Your task to perform on an android device: Search for the best selling coffee table on Crate & Barrel Image 0: 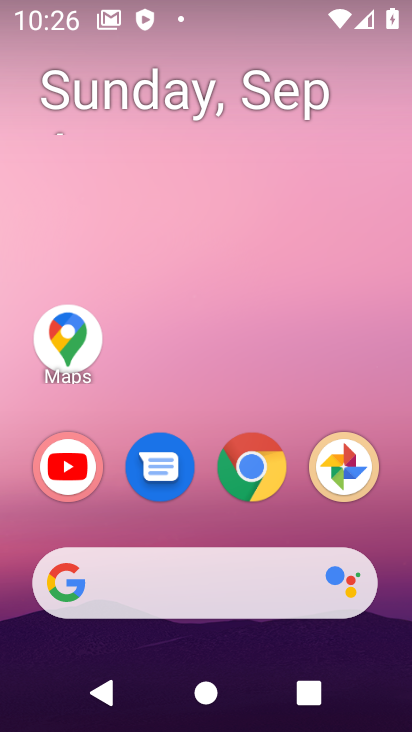
Step 0: click (258, 473)
Your task to perform on an android device: Search for the best selling coffee table on Crate & Barrel Image 1: 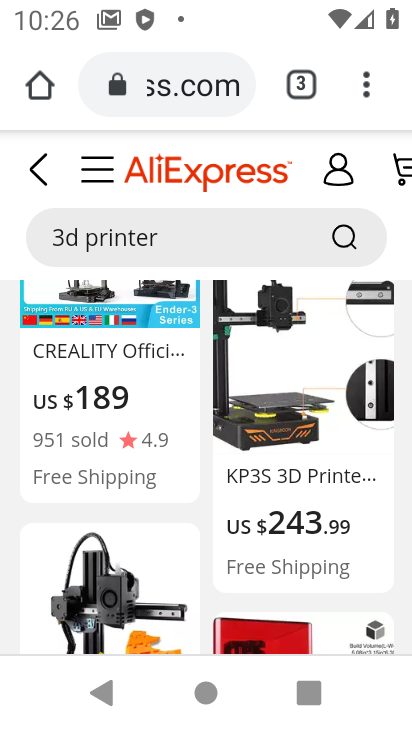
Step 1: click (208, 84)
Your task to perform on an android device: Search for the best selling coffee table on Crate & Barrel Image 2: 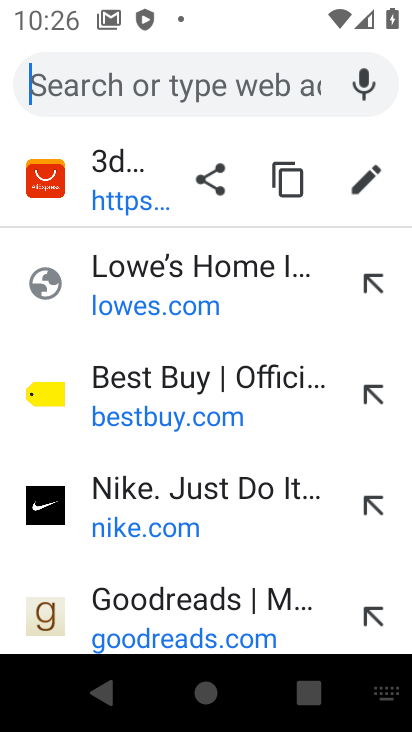
Step 2: type "crate & barrel"
Your task to perform on an android device: Search for the best selling coffee table on Crate & Barrel Image 3: 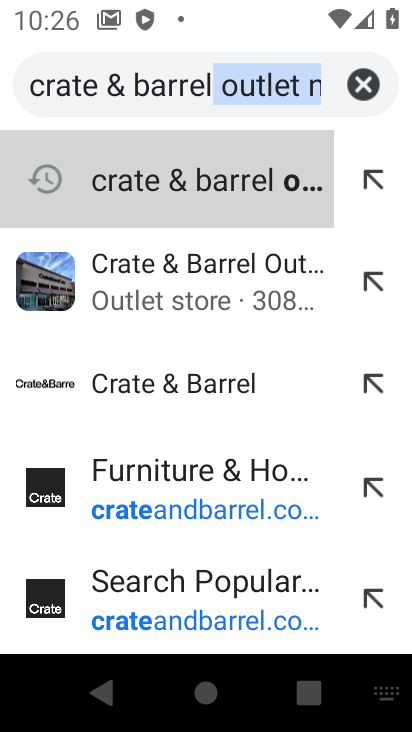
Step 3: click (130, 262)
Your task to perform on an android device: Search for the best selling coffee table on Crate & Barrel Image 4: 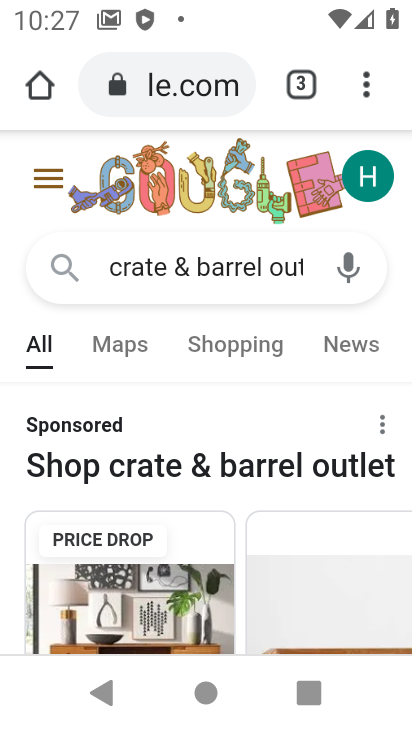
Step 4: drag from (157, 558) to (228, 183)
Your task to perform on an android device: Search for the best selling coffee table on Crate & Barrel Image 5: 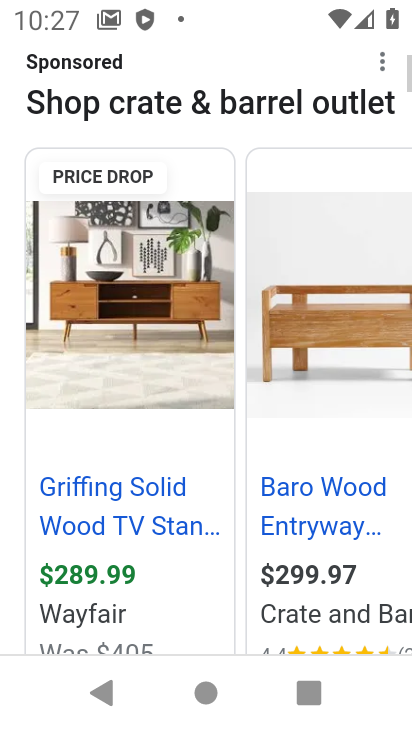
Step 5: drag from (244, 372) to (286, 151)
Your task to perform on an android device: Search for the best selling coffee table on Crate & Barrel Image 6: 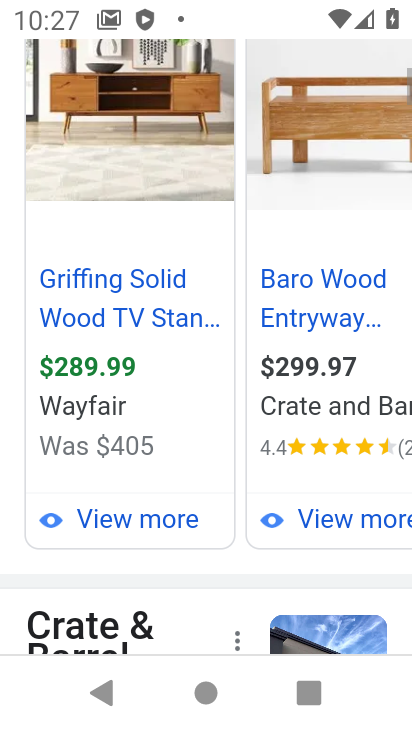
Step 6: drag from (308, 512) to (315, 178)
Your task to perform on an android device: Search for the best selling coffee table on Crate & Barrel Image 7: 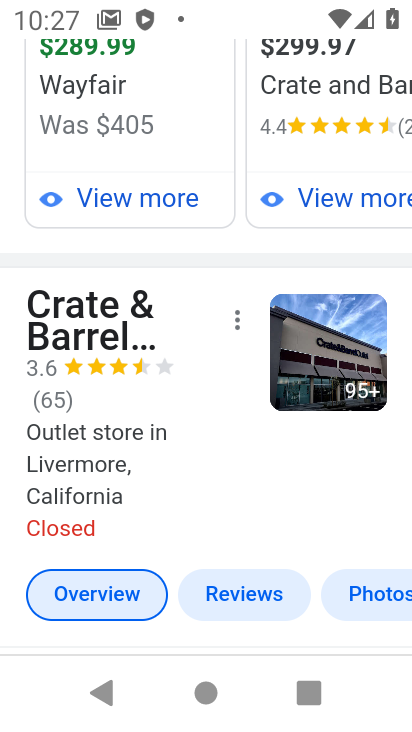
Step 7: click (76, 296)
Your task to perform on an android device: Search for the best selling coffee table on Crate & Barrel Image 8: 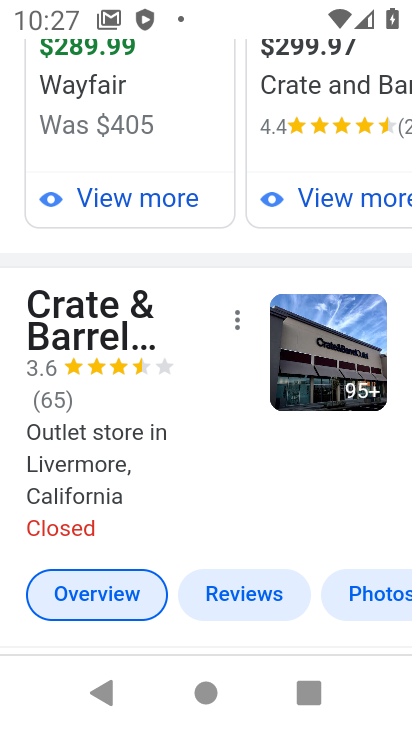
Step 8: click (77, 313)
Your task to perform on an android device: Search for the best selling coffee table on Crate & Barrel Image 9: 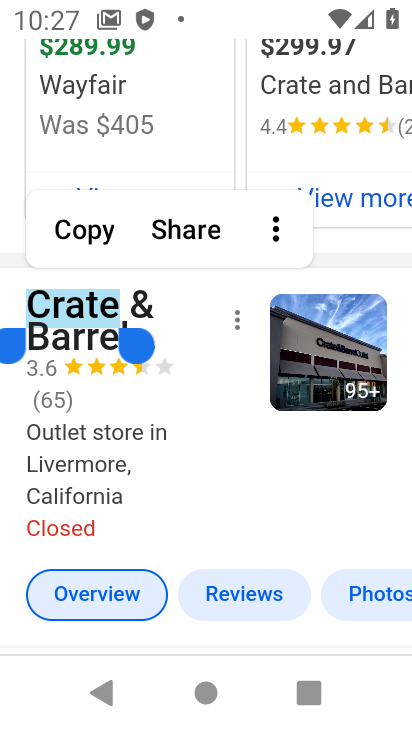
Step 9: drag from (405, 452) to (369, 556)
Your task to perform on an android device: Search for the best selling coffee table on Crate & Barrel Image 10: 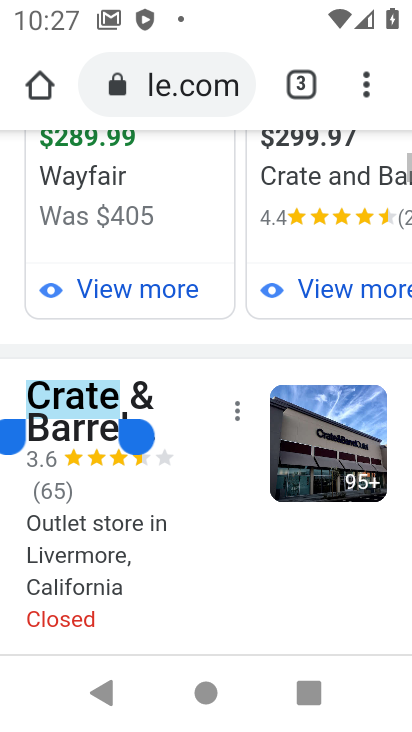
Step 10: drag from (351, 534) to (188, 12)
Your task to perform on an android device: Search for the best selling coffee table on Crate & Barrel Image 11: 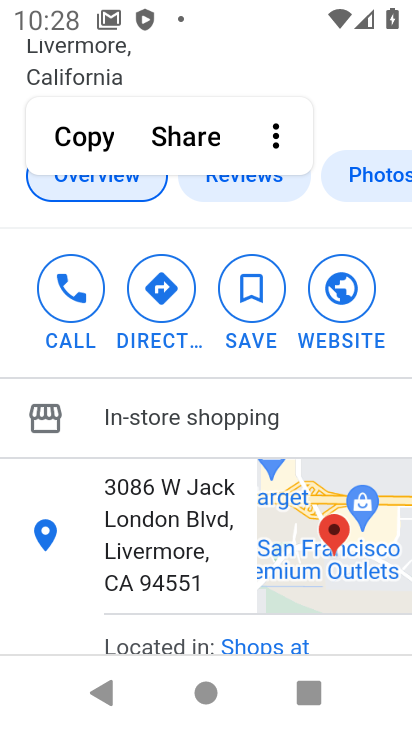
Step 11: drag from (354, 429) to (408, 58)
Your task to perform on an android device: Search for the best selling coffee table on Crate & Barrel Image 12: 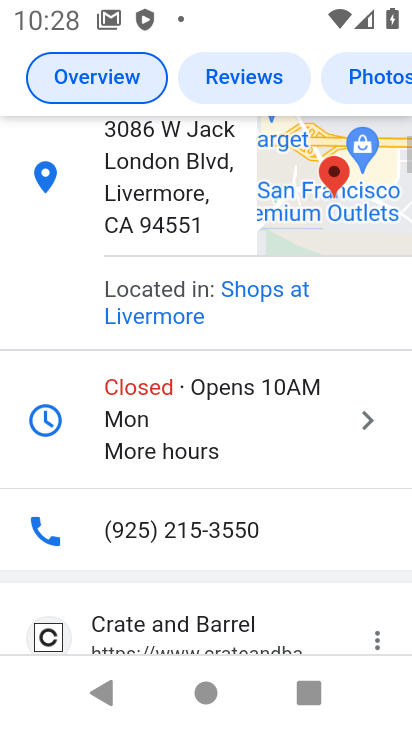
Step 12: drag from (376, 552) to (404, 162)
Your task to perform on an android device: Search for the best selling coffee table on Crate & Barrel Image 13: 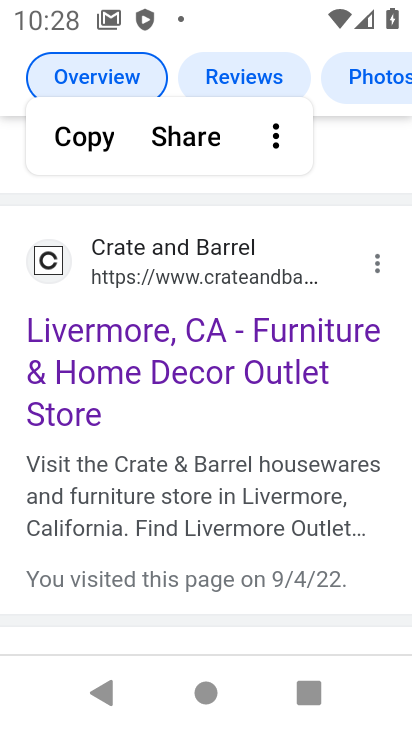
Step 13: click (127, 333)
Your task to perform on an android device: Search for the best selling coffee table on Crate & Barrel Image 14: 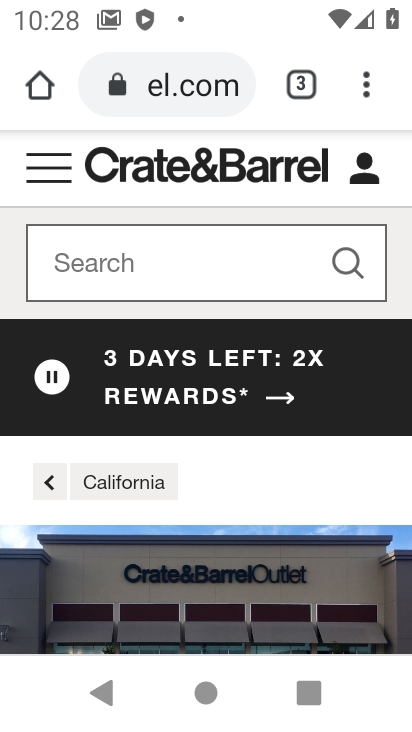
Step 14: click (83, 275)
Your task to perform on an android device: Search for the best selling coffee table on Crate & Barrel Image 15: 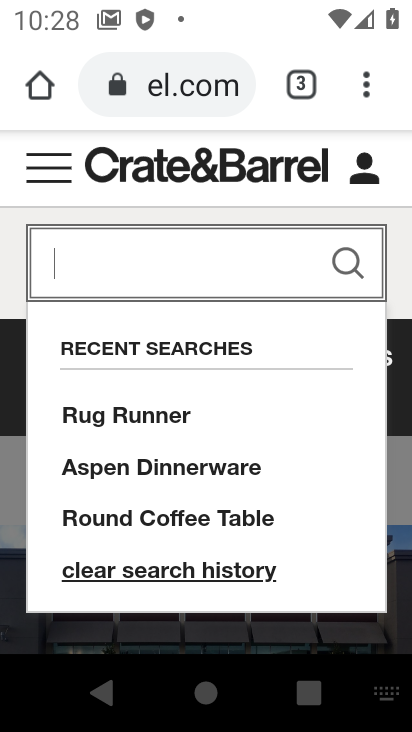
Step 15: type "coffee table"
Your task to perform on an android device: Search for the best selling coffee table on Crate & Barrel Image 16: 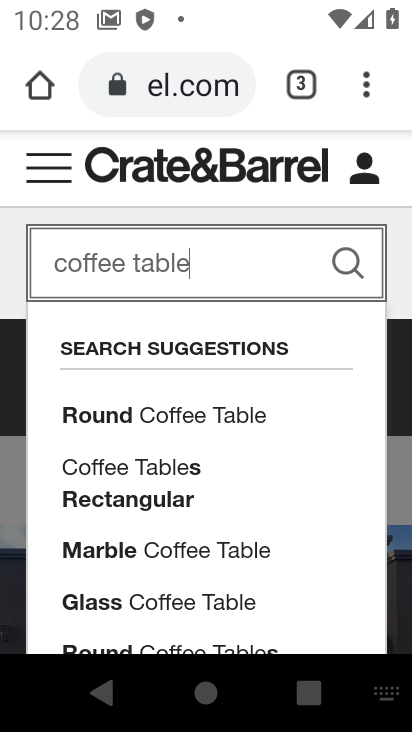
Step 16: click (166, 416)
Your task to perform on an android device: Search for the best selling coffee table on Crate & Barrel Image 17: 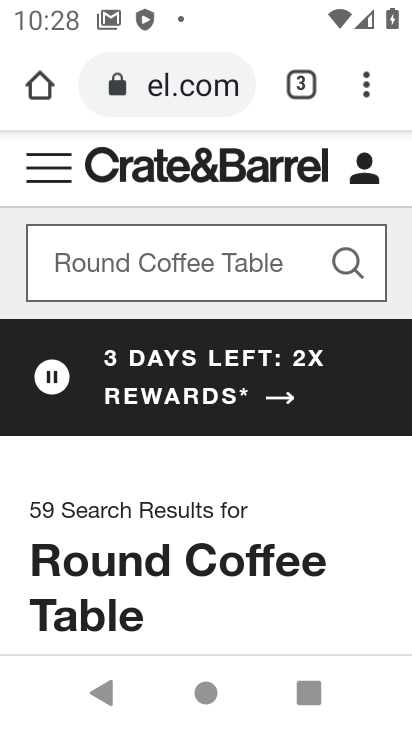
Step 17: drag from (293, 557) to (293, 312)
Your task to perform on an android device: Search for the best selling coffee table on Crate & Barrel Image 18: 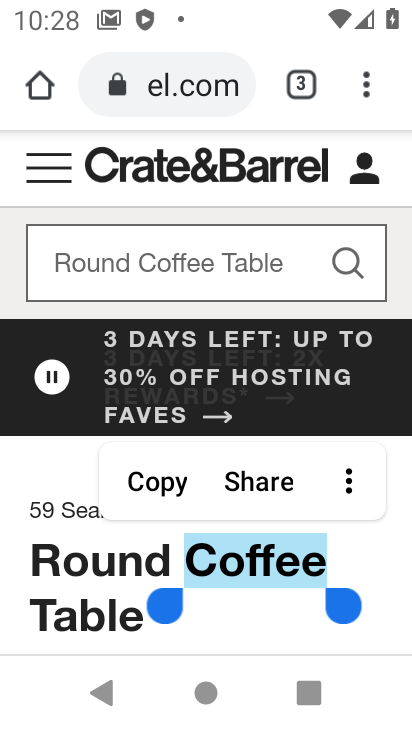
Step 18: drag from (391, 588) to (354, 195)
Your task to perform on an android device: Search for the best selling coffee table on Crate & Barrel Image 19: 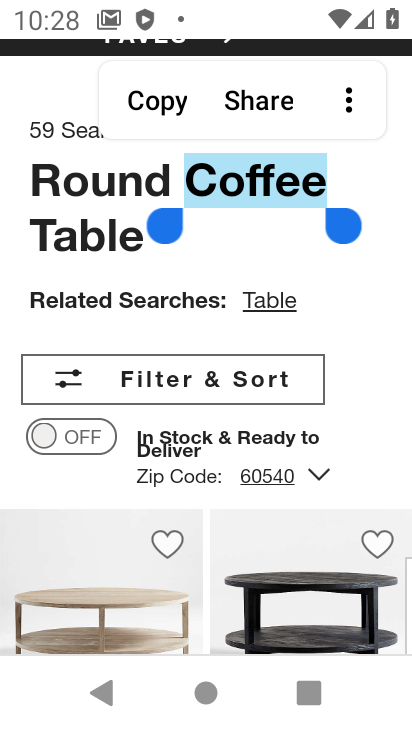
Step 19: click (157, 374)
Your task to perform on an android device: Search for the best selling coffee table on Crate & Barrel Image 20: 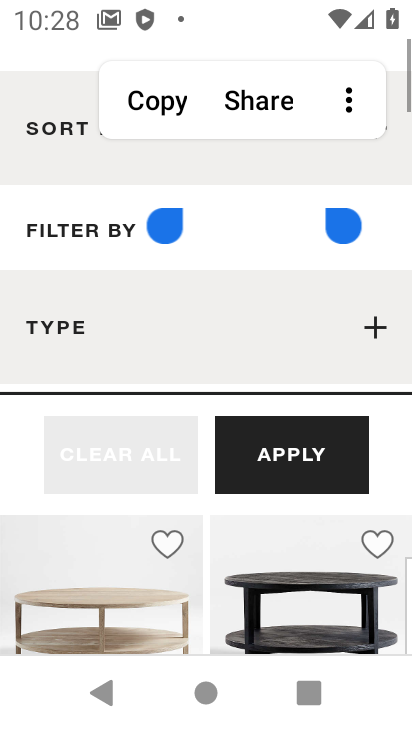
Step 20: drag from (375, 305) to (375, 237)
Your task to perform on an android device: Search for the best selling coffee table on Crate & Barrel Image 21: 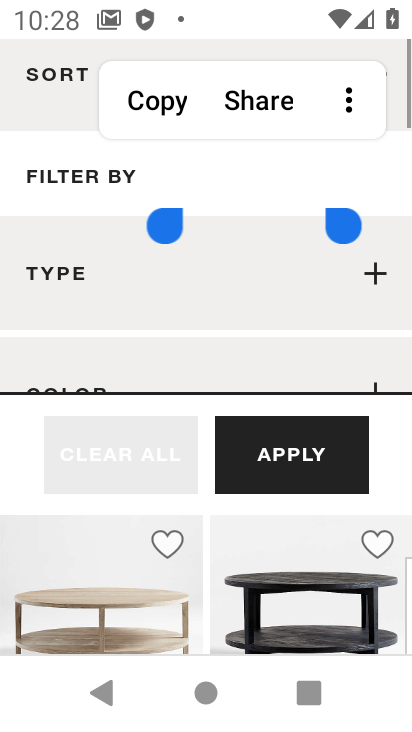
Step 21: drag from (332, 321) to (338, 193)
Your task to perform on an android device: Search for the best selling coffee table on Crate & Barrel Image 22: 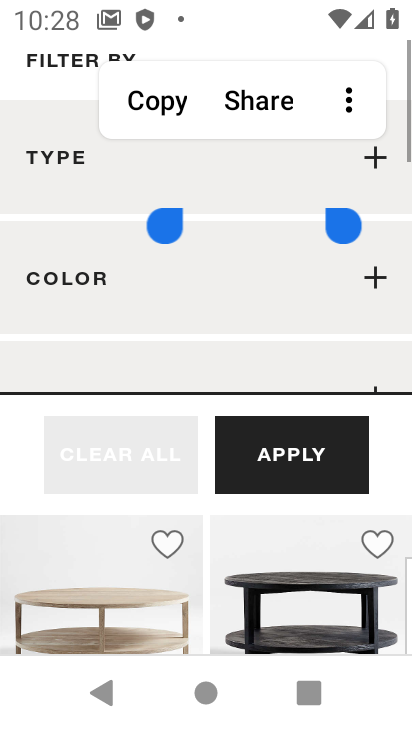
Step 22: drag from (270, 340) to (281, 155)
Your task to perform on an android device: Search for the best selling coffee table on Crate & Barrel Image 23: 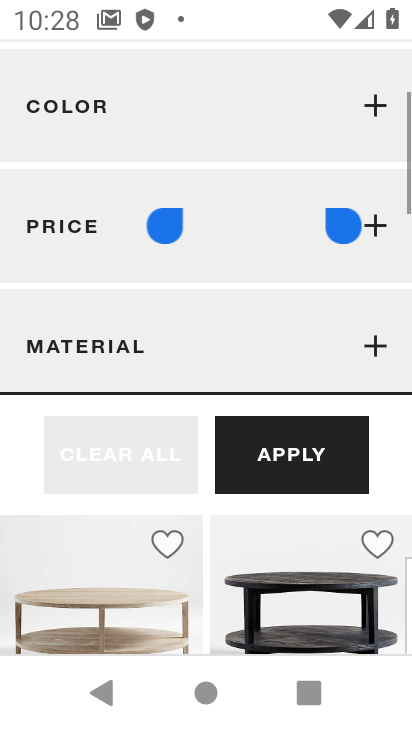
Step 23: drag from (235, 292) to (246, 191)
Your task to perform on an android device: Search for the best selling coffee table on Crate & Barrel Image 24: 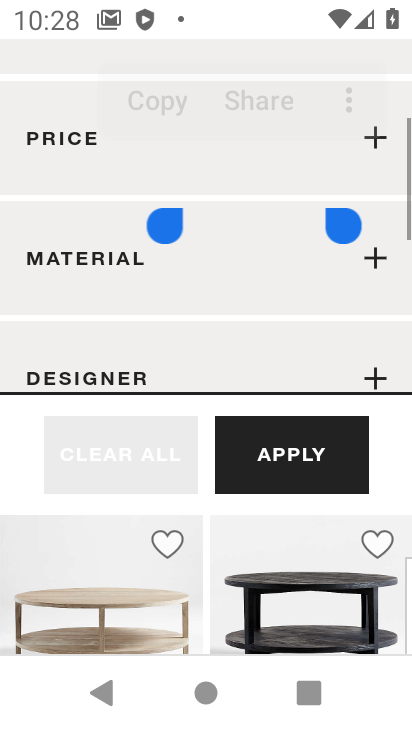
Step 24: drag from (260, 168) to (290, 89)
Your task to perform on an android device: Search for the best selling coffee table on Crate & Barrel Image 25: 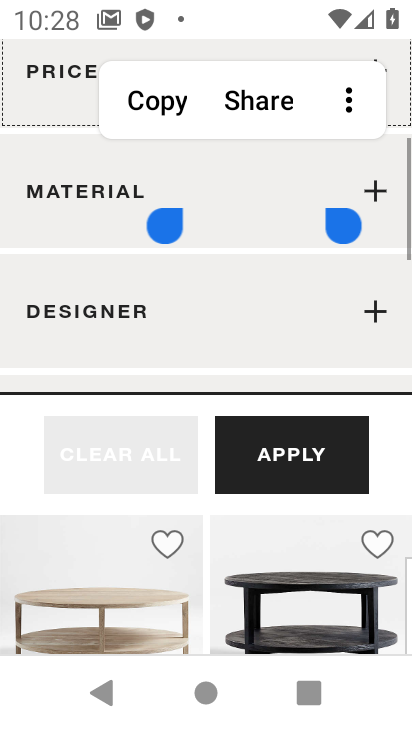
Step 25: drag from (287, 299) to (244, 71)
Your task to perform on an android device: Search for the best selling coffee table on Crate & Barrel Image 26: 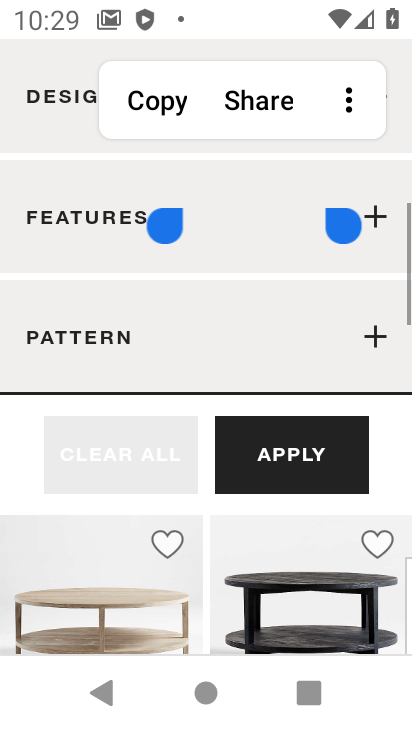
Step 26: drag from (211, 300) to (217, 47)
Your task to perform on an android device: Search for the best selling coffee table on Crate & Barrel Image 27: 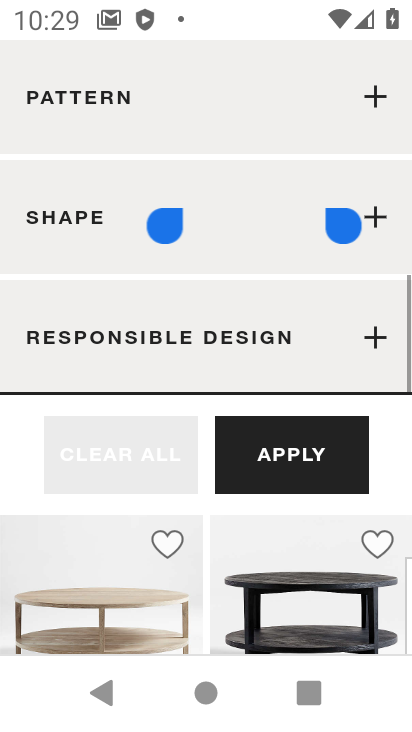
Step 27: drag from (249, 325) to (222, 22)
Your task to perform on an android device: Search for the best selling coffee table on Crate & Barrel Image 28: 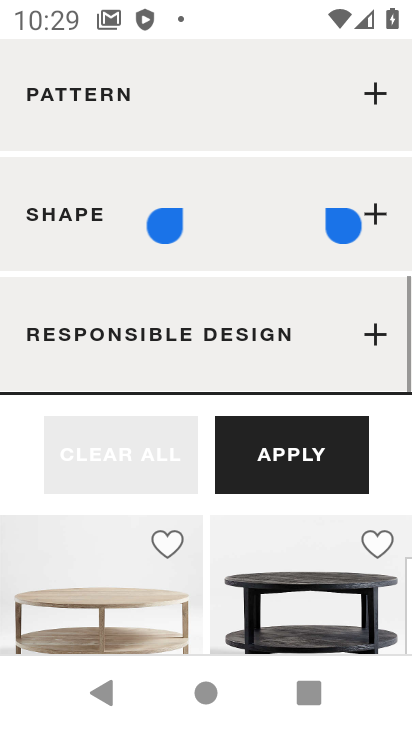
Step 28: drag from (184, 341) to (211, 69)
Your task to perform on an android device: Search for the best selling coffee table on Crate & Barrel Image 29: 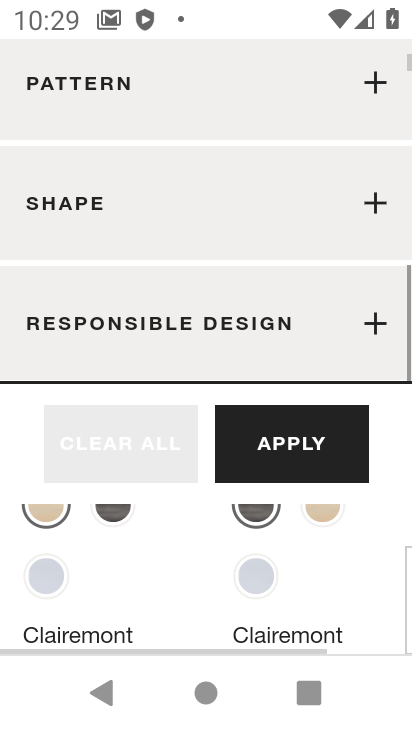
Step 29: drag from (302, 328) to (295, 123)
Your task to perform on an android device: Search for the best selling coffee table on Crate & Barrel Image 30: 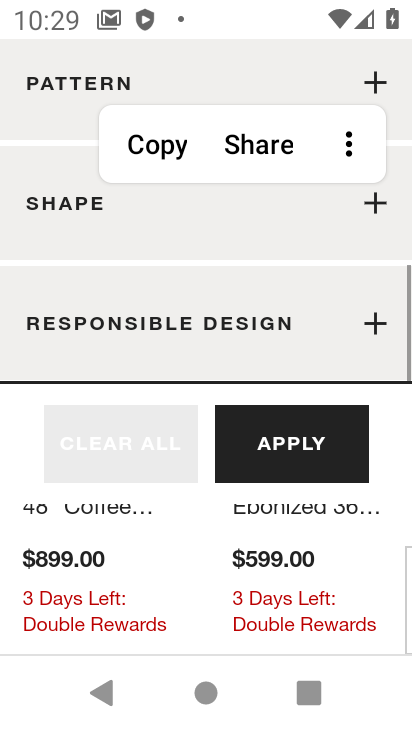
Step 30: drag from (252, 167) to (245, 378)
Your task to perform on an android device: Search for the best selling coffee table on Crate & Barrel Image 31: 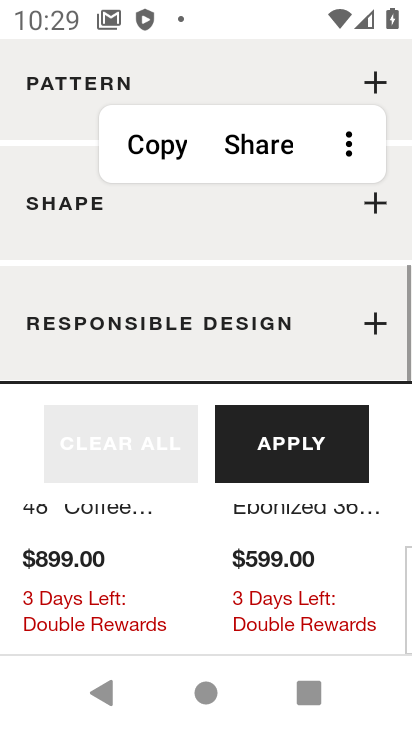
Step 31: drag from (264, 240) to (254, 456)
Your task to perform on an android device: Search for the best selling coffee table on Crate & Barrel Image 32: 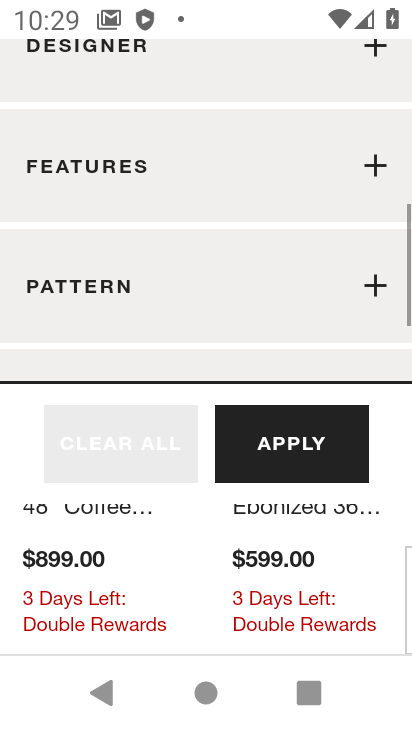
Step 32: drag from (253, 164) to (246, 349)
Your task to perform on an android device: Search for the best selling coffee table on Crate & Barrel Image 33: 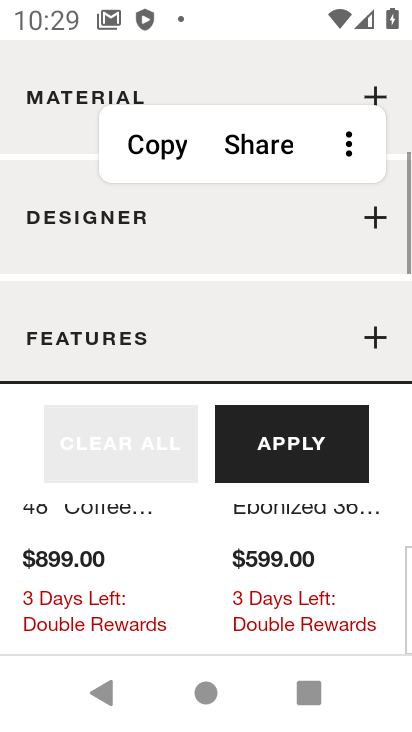
Step 33: click (365, 335)
Your task to perform on an android device: Search for the best selling coffee table on Crate & Barrel Image 34: 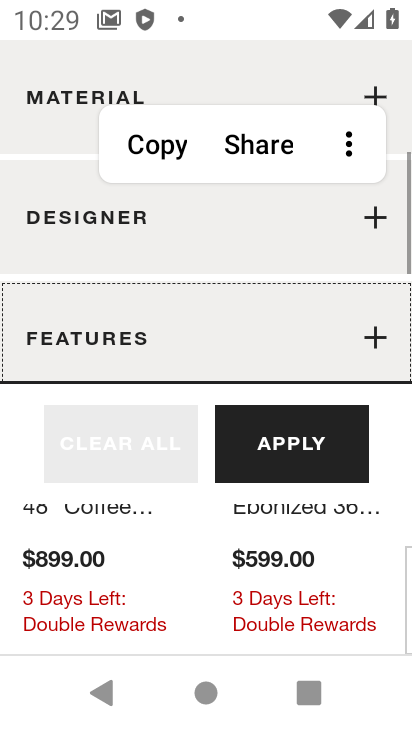
Step 34: click (371, 331)
Your task to perform on an android device: Search for the best selling coffee table on Crate & Barrel Image 35: 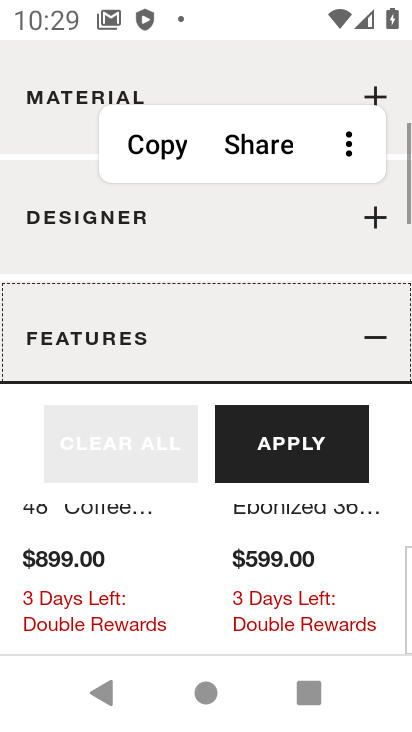
Step 35: drag from (386, 366) to (409, 597)
Your task to perform on an android device: Search for the best selling coffee table on Crate & Barrel Image 36: 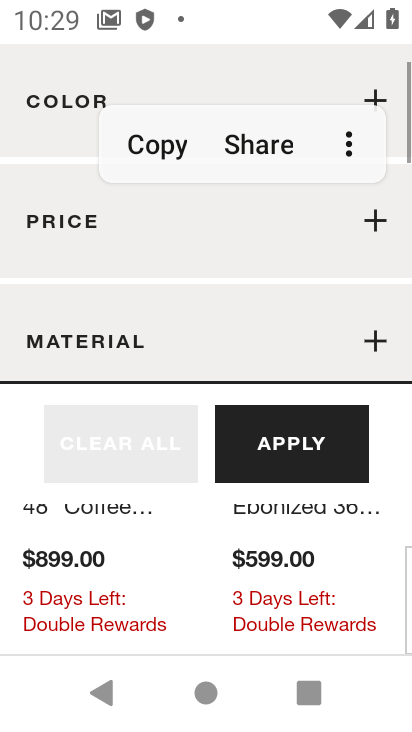
Step 36: drag from (231, 142) to (264, 424)
Your task to perform on an android device: Search for the best selling coffee table on Crate & Barrel Image 37: 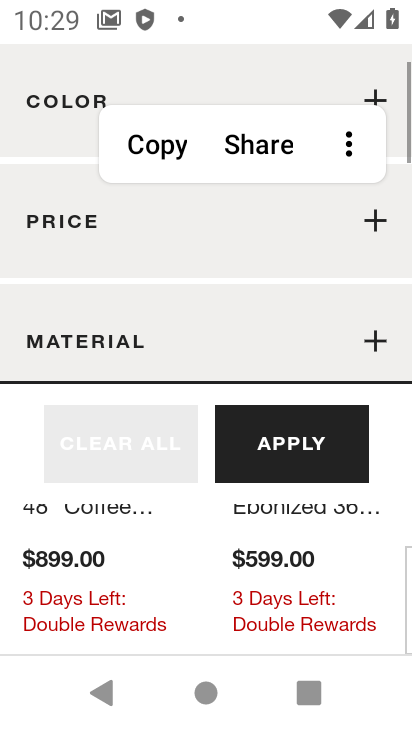
Step 37: click (375, 221)
Your task to perform on an android device: Search for the best selling coffee table on Crate & Barrel Image 38: 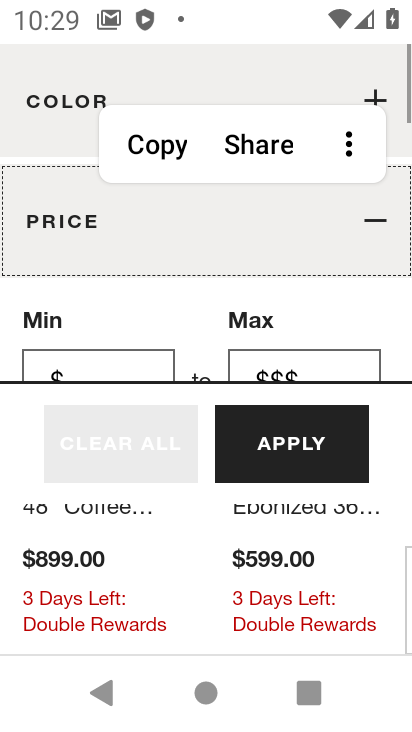
Step 38: click (312, 363)
Your task to perform on an android device: Search for the best selling coffee table on Crate & Barrel Image 39: 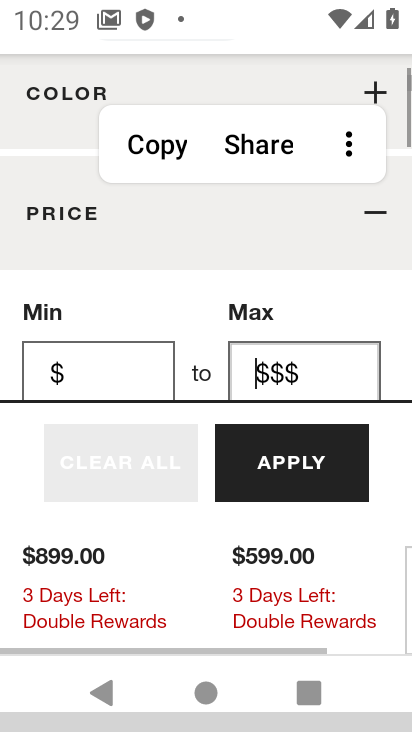
Step 39: click (293, 468)
Your task to perform on an android device: Search for the best selling coffee table on Crate & Barrel Image 40: 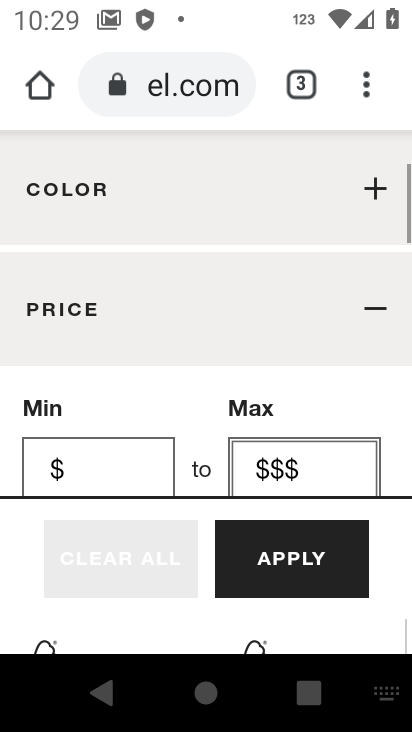
Step 40: click (278, 562)
Your task to perform on an android device: Search for the best selling coffee table on Crate & Barrel Image 41: 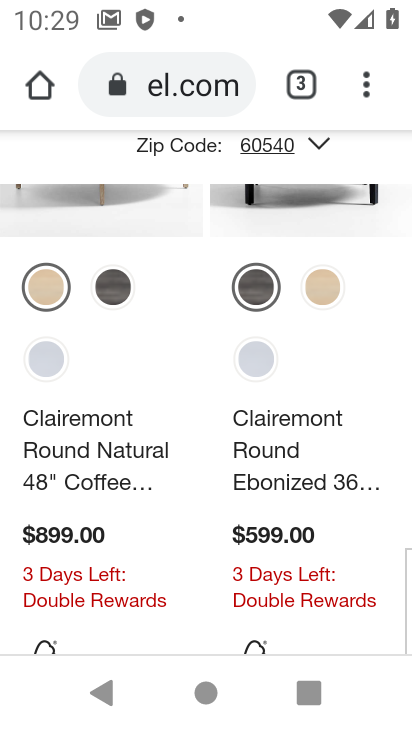
Step 41: task complete